Your task to perform on an android device: empty trash in google photos Image 0: 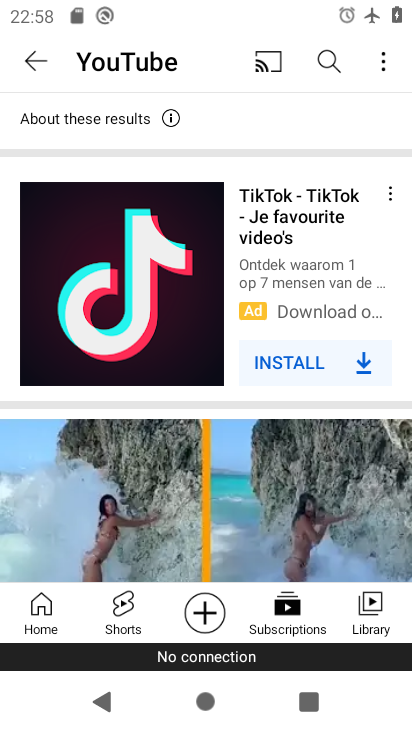
Step 0: press home button
Your task to perform on an android device: empty trash in google photos Image 1: 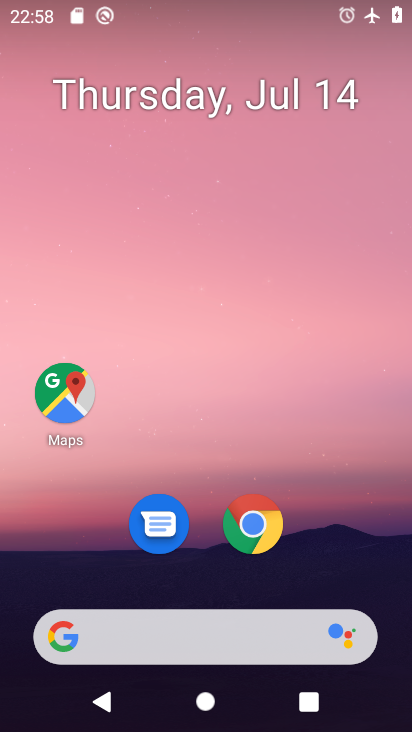
Step 1: drag from (297, 451) to (285, 95)
Your task to perform on an android device: empty trash in google photos Image 2: 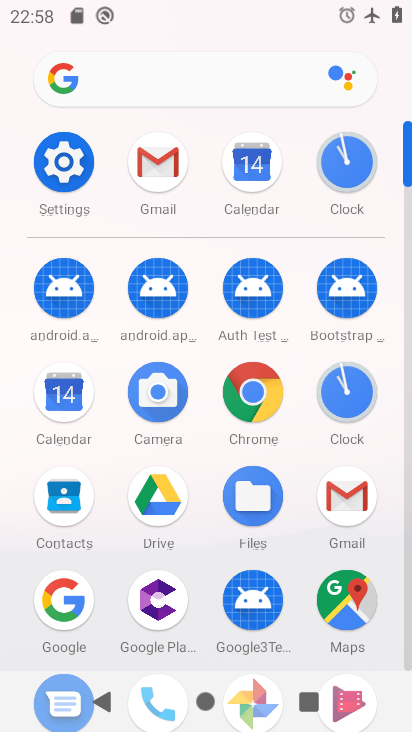
Step 2: drag from (198, 485) to (248, 77)
Your task to perform on an android device: empty trash in google photos Image 3: 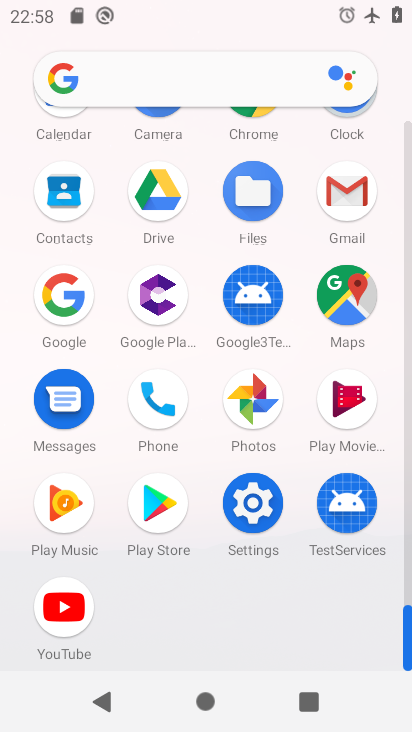
Step 3: click (266, 411)
Your task to perform on an android device: empty trash in google photos Image 4: 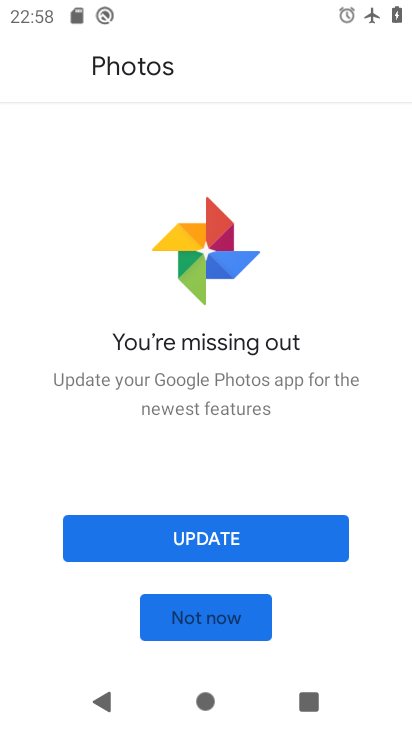
Step 4: click (247, 626)
Your task to perform on an android device: empty trash in google photos Image 5: 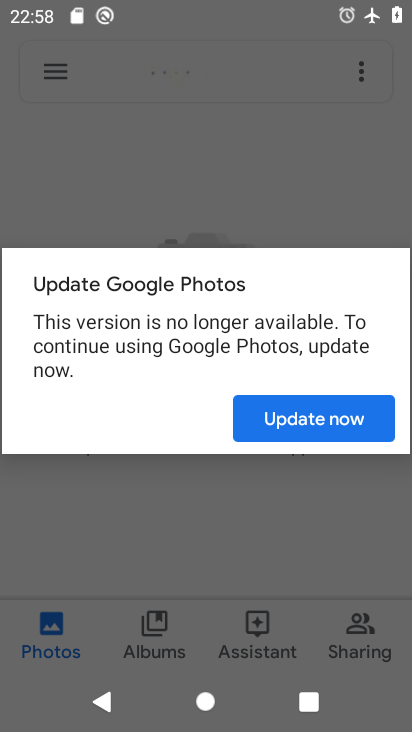
Step 5: click (332, 429)
Your task to perform on an android device: empty trash in google photos Image 6: 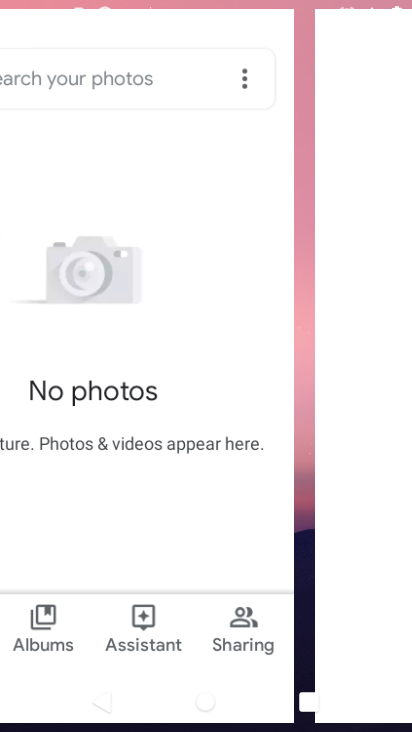
Step 6: click (60, 63)
Your task to perform on an android device: empty trash in google photos Image 7: 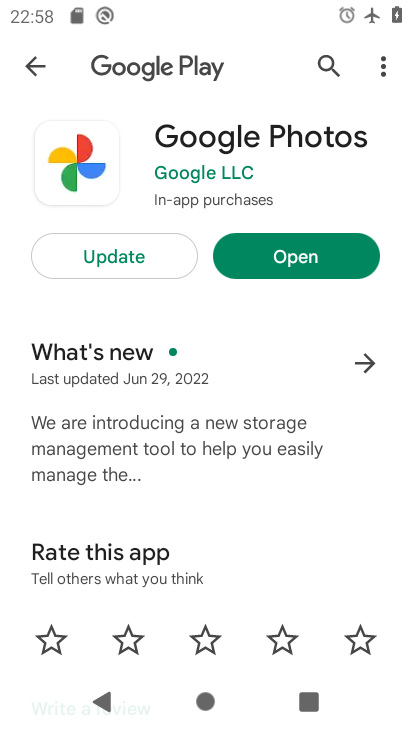
Step 7: click (309, 257)
Your task to perform on an android device: empty trash in google photos Image 8: 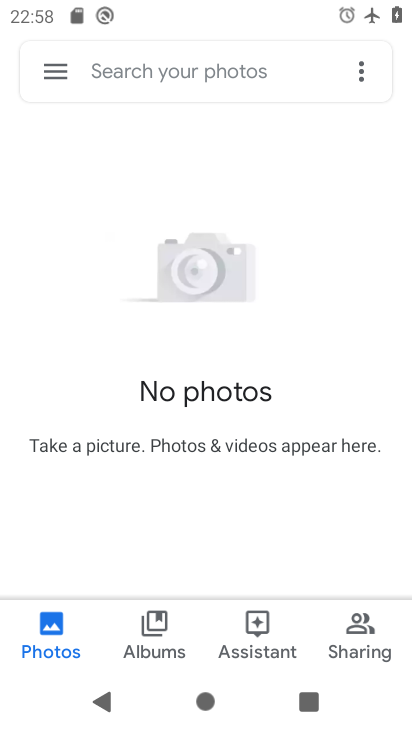
Step 8: click (51, 63)
Your task to perform on an android device: empty trash in google photos Image 9: 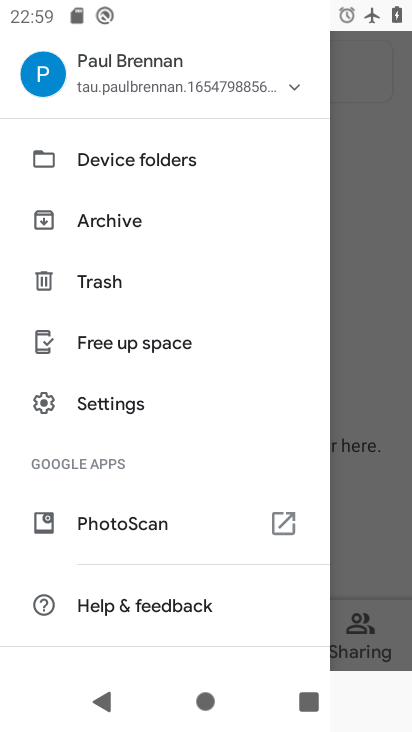
Step 9: click (92, 267)
Your task to perform on an android device: empty trash in google photos Image 10: 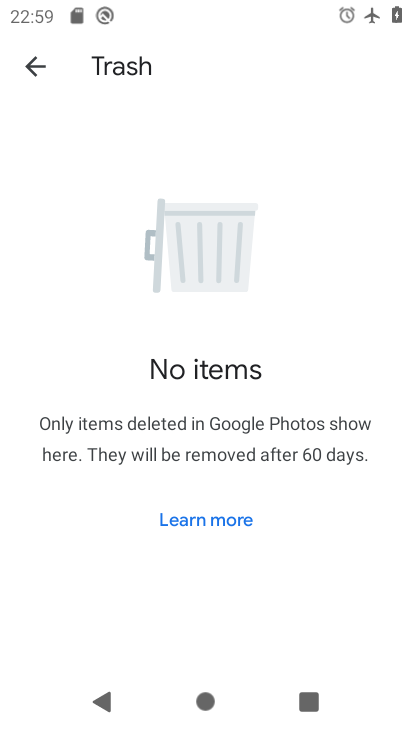
Step 10: task complete